Your task to perform on an android device: Open display settings Image 0: 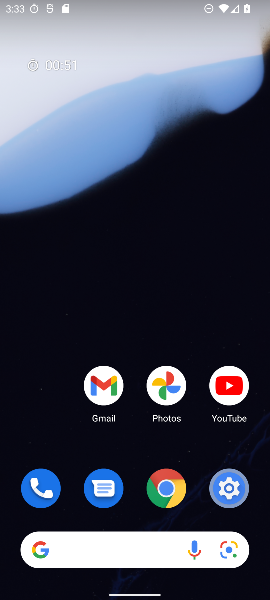
Step 0: click (197, 347)
Your task to perform on an android device: Open display settings Image 1: 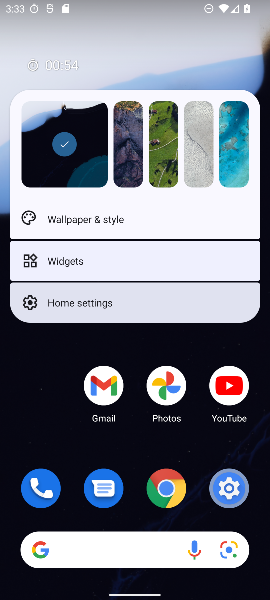
Step 1: click (234, 497)
Your task to perform on an android device: Open display settings Image 2: 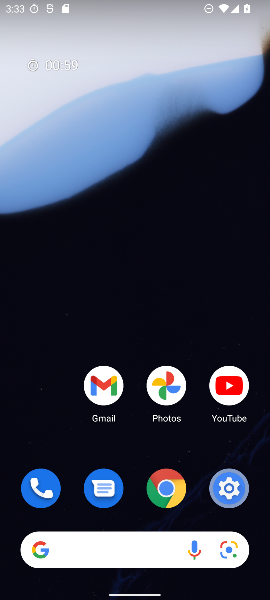
Step 2: click (232, 492)
Your task to perform on an android device: Open display settings Image 3: 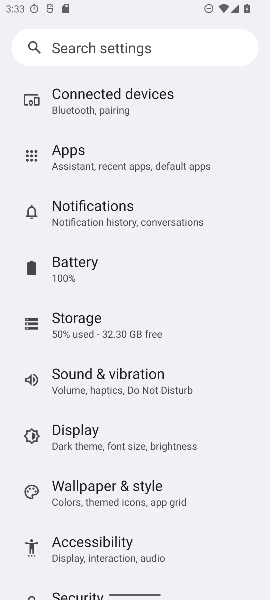
Step 3: click (136, 452)
Your task to perform on an android device: Open display settings Image 4: 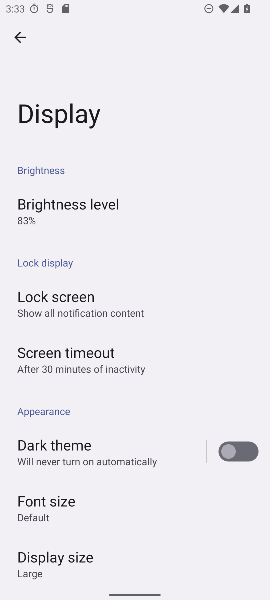
Step 4: task complete